Your task to perform on an android device: turn off improve location accuracy Image 0: 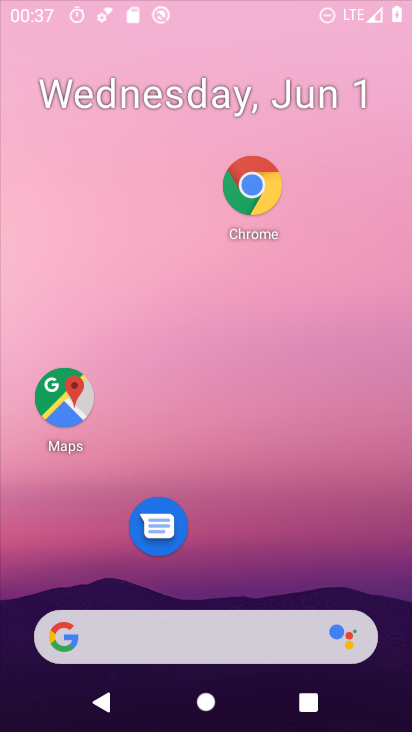
Step 0: click (231, 154)
Your task to perform on an android device: turn off improve location accuracy Image 1: 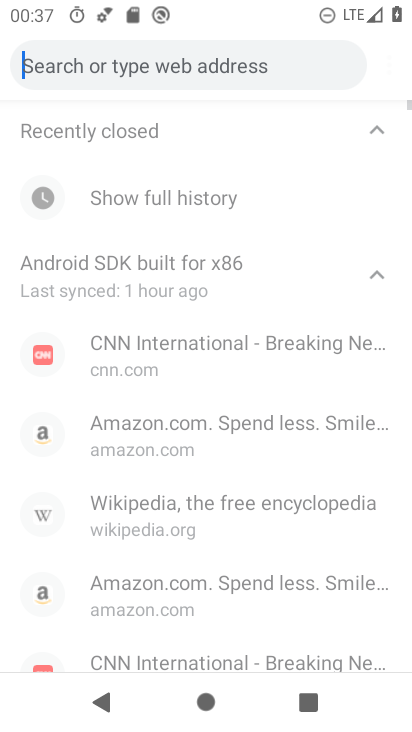
Step 1: drag from (203, 552) to (197, 174)
Your task to perform on an android device: turn off improve location accuracy Image 2: 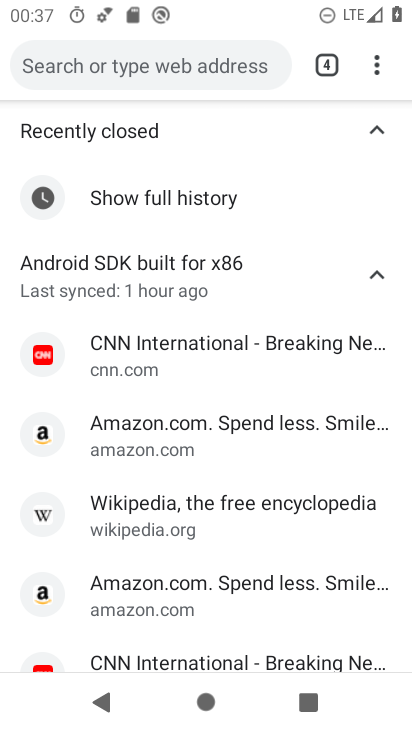
Step 2: drag from (221, 143) to (409, 557)
Your task to perform on an android device: turn off improve location accuracy Image 3: 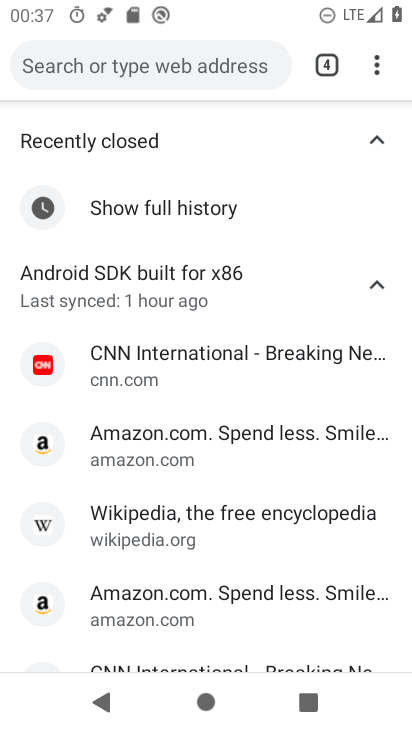
Step 3: drag from (264, 559) to (282, 430)
Your task to perform on an android device: turn off improve location accuracy Image 4: 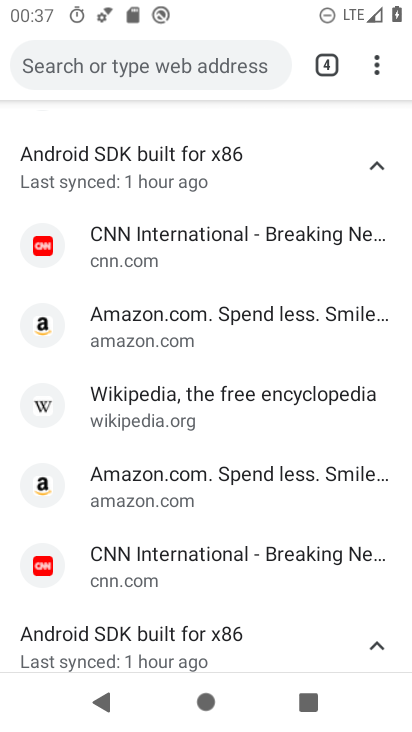
Step 4: drag from (198, 493) to (222, 232)
Your task to perform on an android device: turn off improve location accuracy Image 5: 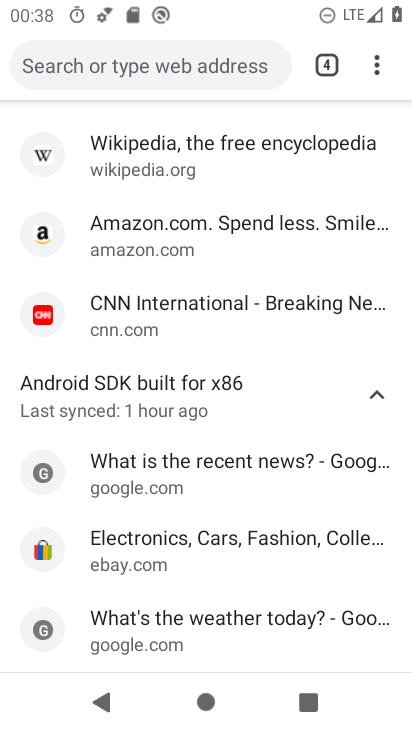
Step 5: drag from (258, 565) to (374, 243)
Your task to perform on an android device: turn off improve location accuracy Image 6: 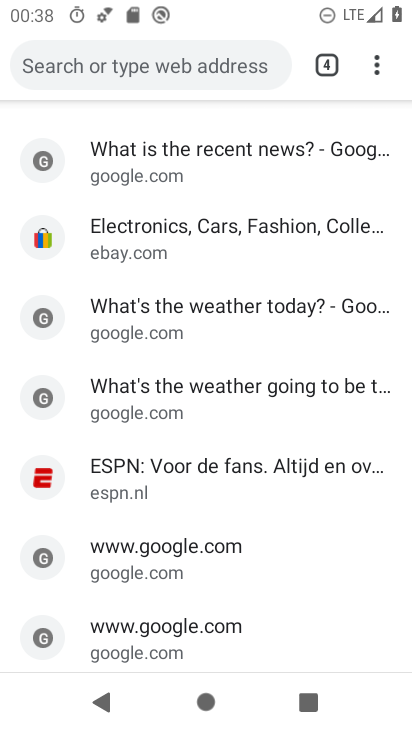
Step 6: drag from (249, 636) to (295, 288)
Your task to perform on an android device: turn off improve location accuracy Image 7: 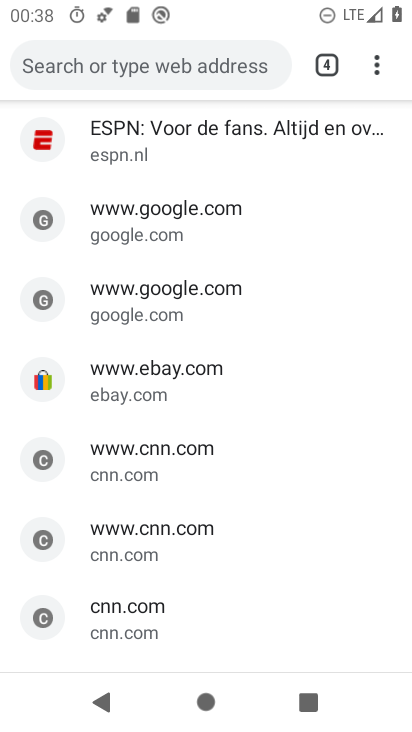
Step 7: drag from (226, 561) to (352, 269)
Your task to perform on an android device: turn off improve location accuracy Image 8: 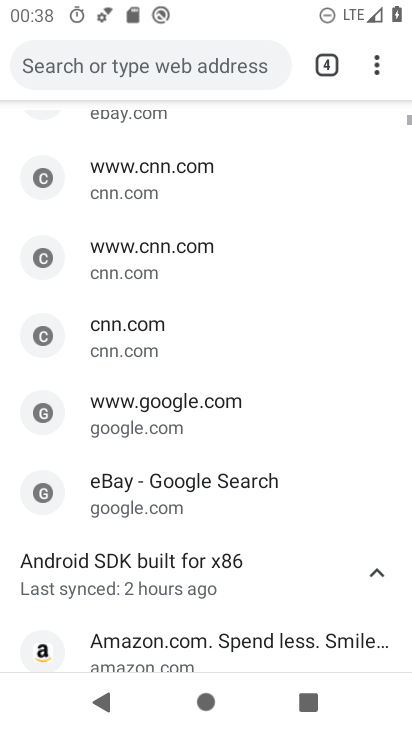
Step 8: drag from (276, 537) to (309, 179)
Your task to perform on an android device: turn off improve location accuracy Image 9: 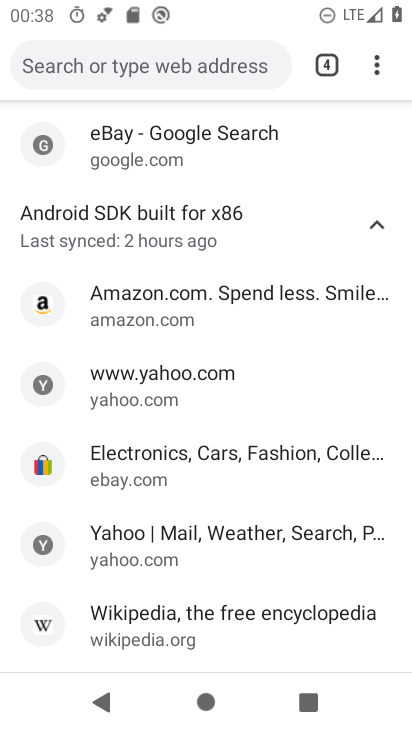
Step 9: drag from (208, 589) to (259, 342)
Your task to perform on an android device: turn off improve location accuracy Image 10: 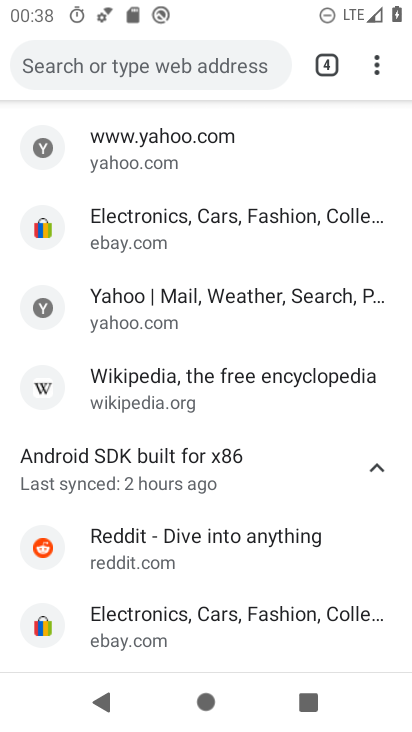
Step 10: drag from (227, 601) to (261, 403)
Your task to perform on an android device: turn off improve location accuracy Image 11: 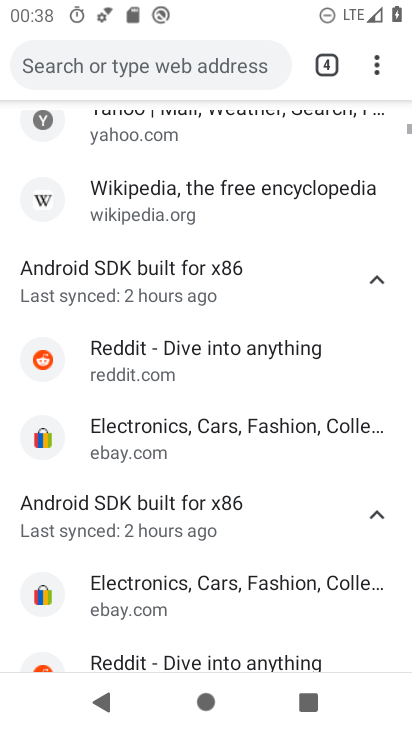
Step 11: drag from (290, 236) to (388, 720)
Your task to perform on an android device: turn off improve location accuracy Image 12: 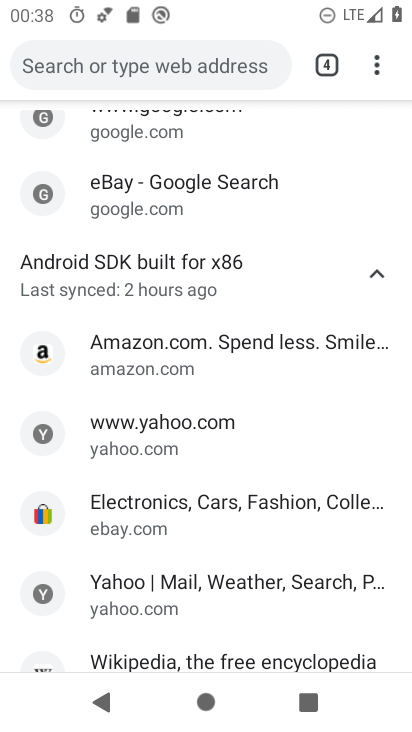
Step 12: click (377, 54)
Your task to perform on an android device: turn off improve location accuracy Image 13: 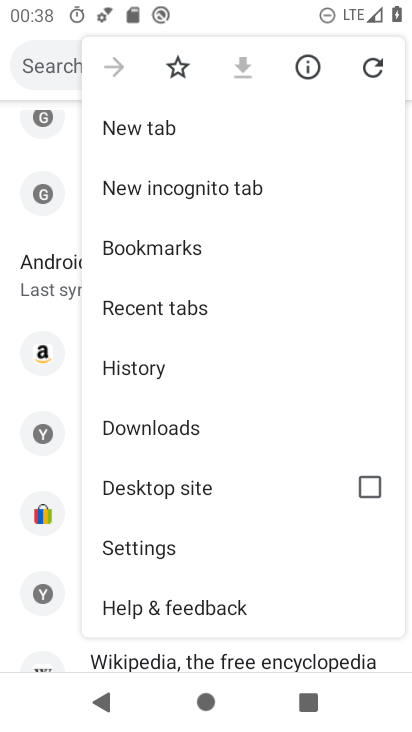
Step 13: drag from (252, 606) to (282, 257)
Your task to perform on an android device: turn off improve location accuracy Image 14: 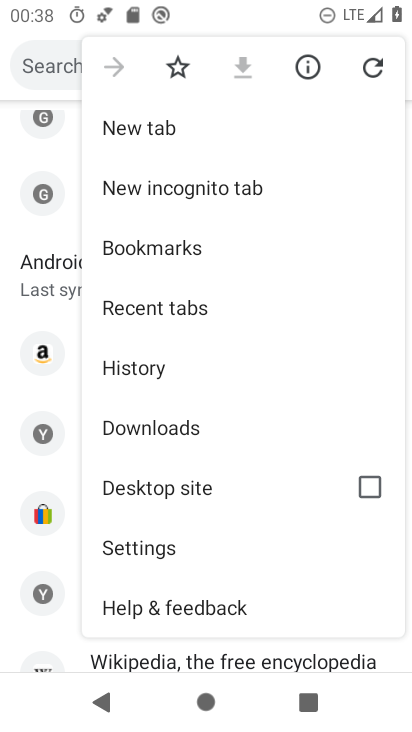
Step 14: click (209, 548)
Your task to perform on an android device: turn off improve location accuracy Image 15: 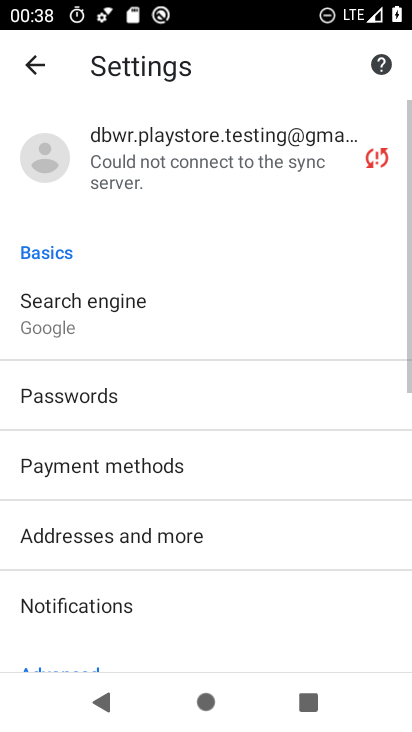
Step 15: press home button
Your task to perform on an android device: turn off improve location accuracy Image 16: 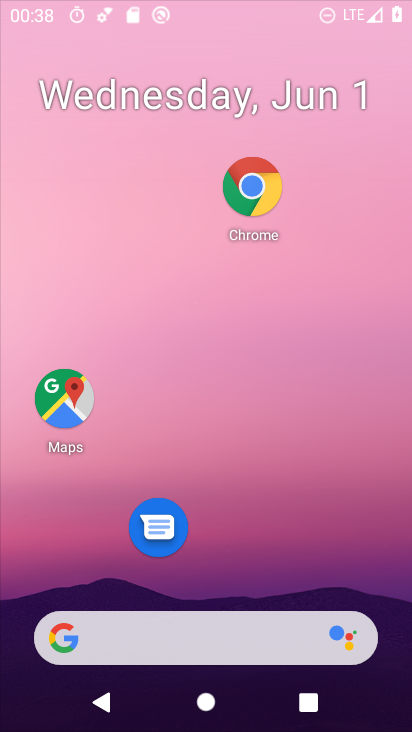
Step 16: drag from (183, 609) to (213, 302)
Your task to perform on an android device: turn off improve location accuracy Image 17: 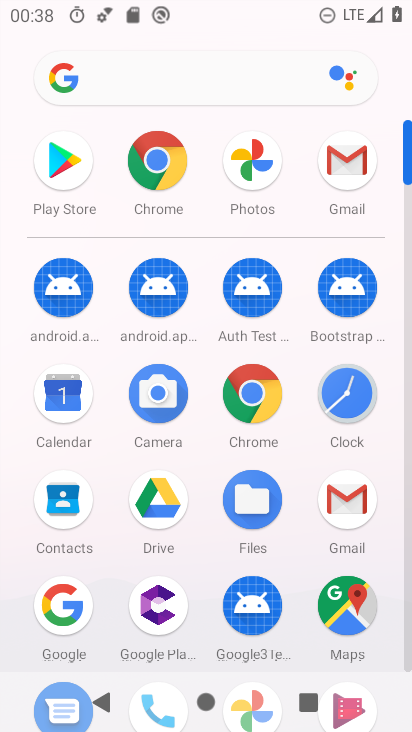
Step 17: drag from (198, 566) to (178, 229)
Your task to perform on an android device: turn off improve location accuracy Image 18: 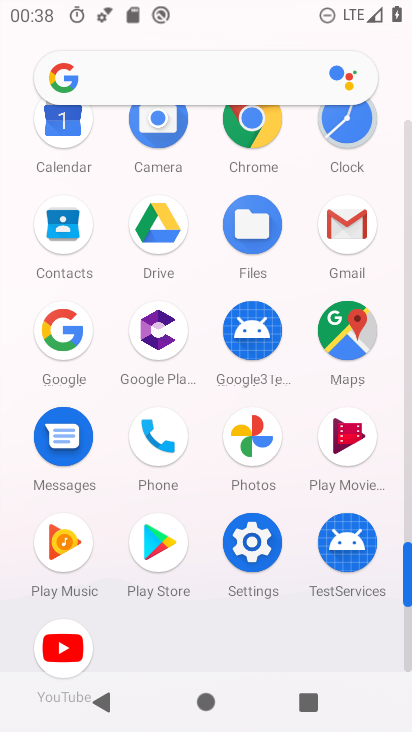
Step 18: click (250, 530)
Your task to perform on an android device: turn off improve location accuracy Image 19: 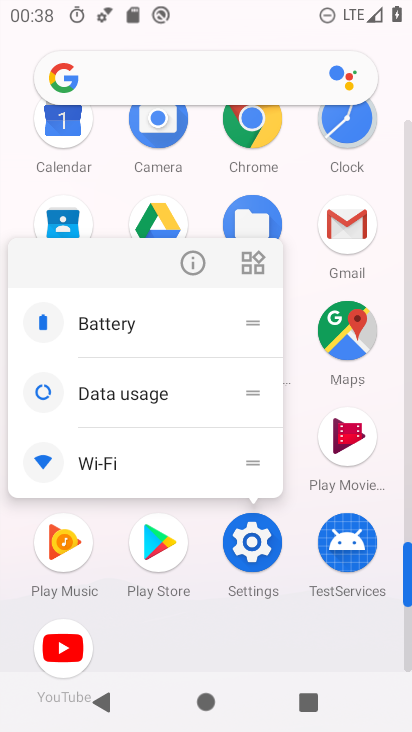
Step 19: click (177, 275)
Your task to perform on an android device: turn off improve location accuracy Image 20: 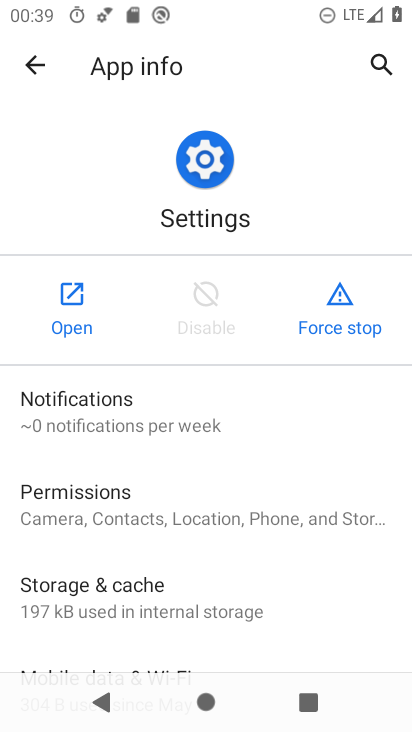
Step 20: click (65, 320)
Your task to perform on an android device: turn off improve location accuracy Image 21: 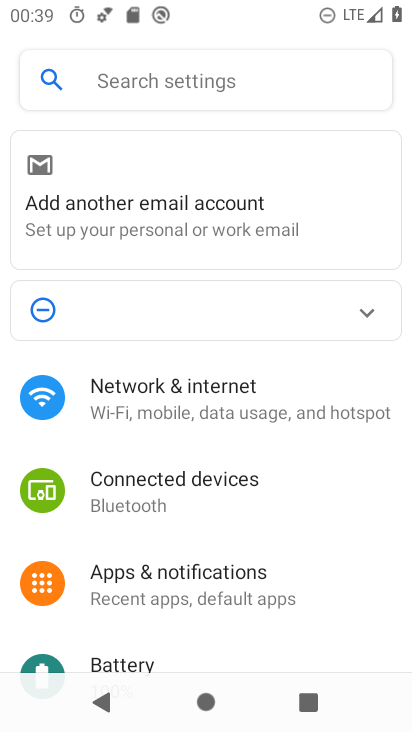
Step 21: drag from (222, 660) to (216, 61)
Your task to perform on an android device: turn off improve location accuracy Image 22: 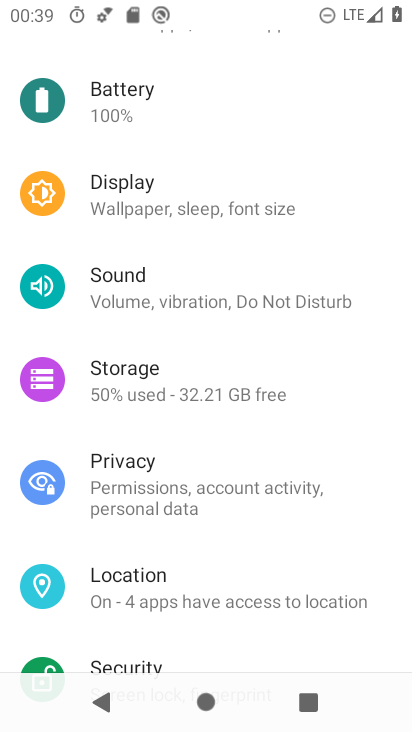
Step 22: drag from (216, 501) to (283, 159)
Your task to perform on an android device: turn off improve location accuracy Image 23: 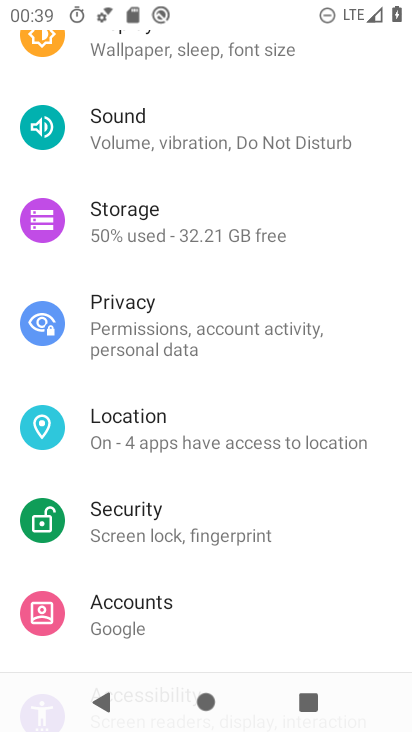
Step 23: click (202, 390)
Your task to perform on an android device: turn off improve location accuracy Image 24: 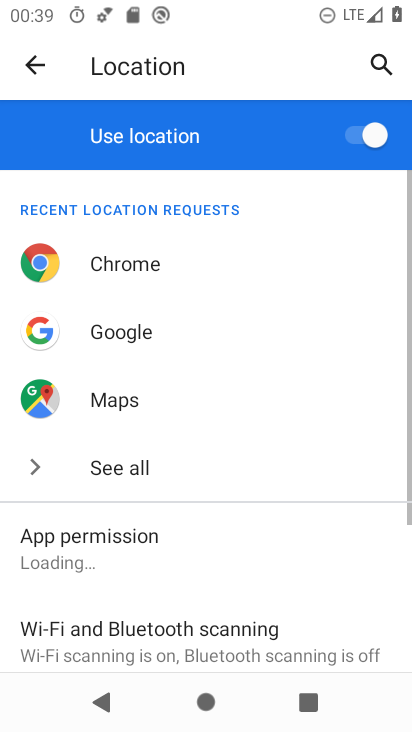
Step 24: drag from (188, 529) to (230, 222)
Your task to perform on an android device: turn off improve location accuracy Image 25: 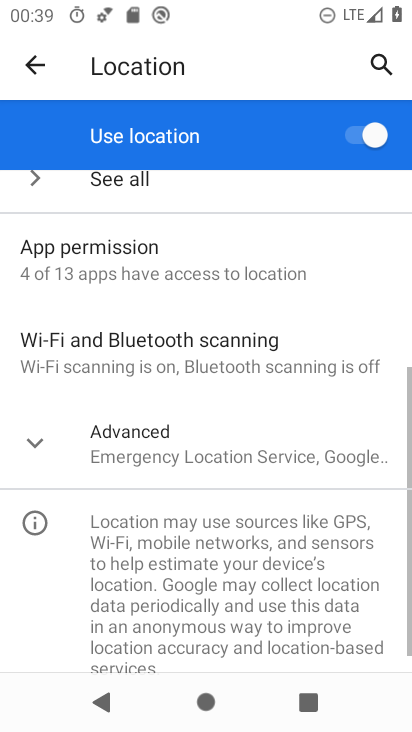
Step 25: click (169, 472)
Your task to perform on an android device: turn off improve location accuracy Image 26: 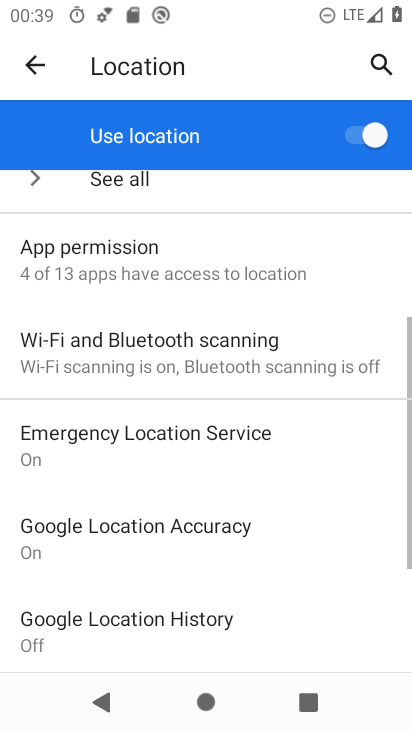
Step 26: drag from (247, 601) to (300, 312)
Your task to perform on an android device: turn off improve location accuracy Image 27: 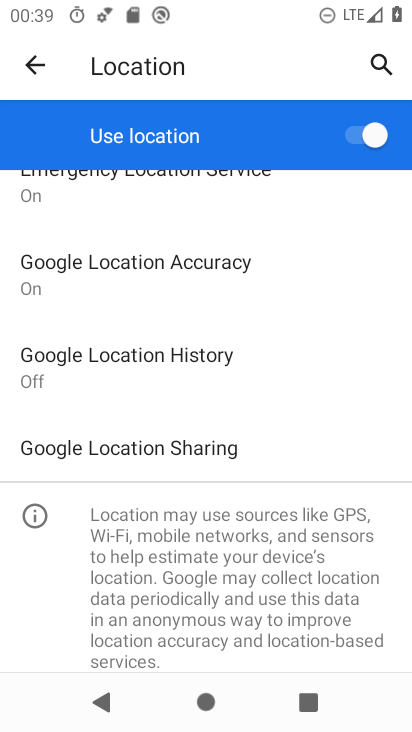
Step 27: click (170, 285)
Your task to perform on an android device: turn off improve location accuracy Image 28: 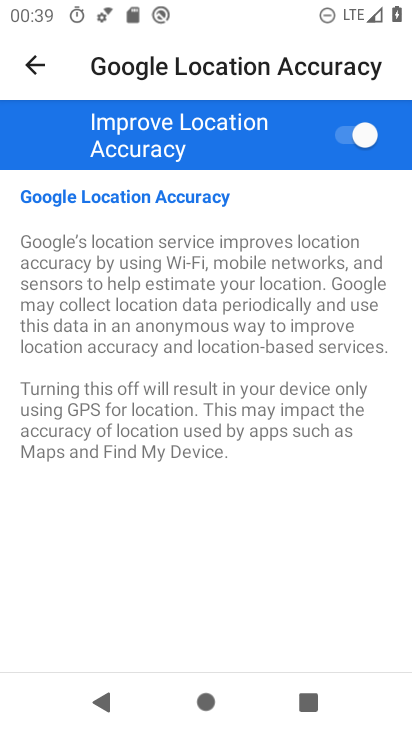
Step 28: click (363, 132)
Your task to perform on an android device: turn off improve location accuracy Image 29: 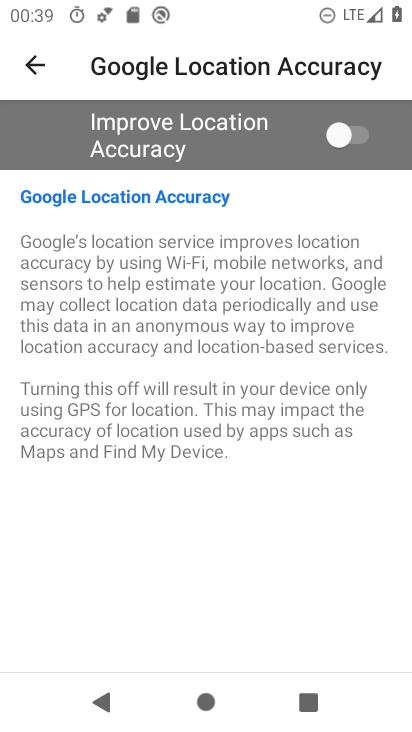
Step 29: task complete